Your task to perform on an android device: Open settings on Google Maps Image 0: 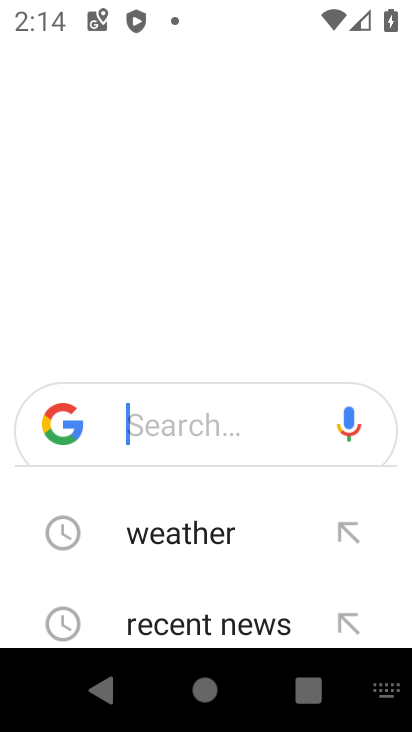
Step 0: press home button
Your task to perform on an android device: Open settings on Google Maps Image 1: 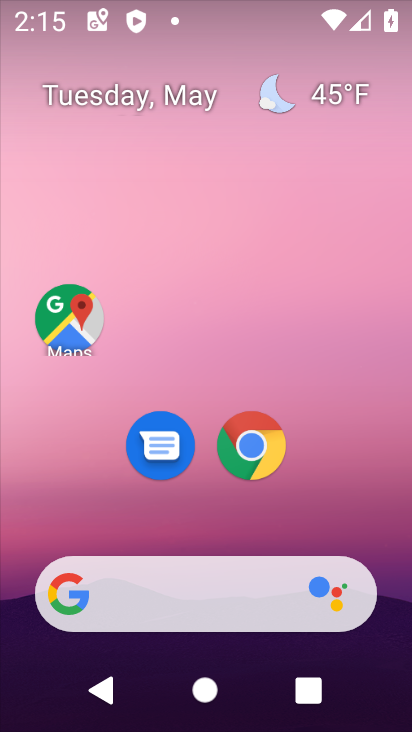
Step 1: click (69, 293)
Your task to perform on an android device: Open settings on Google Maps Image 2: 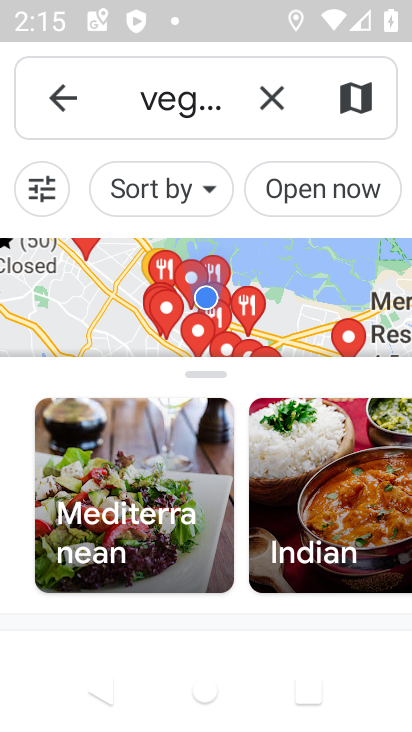
Step 2: task complete